Your task to perform on an android device: Set the phone to "Do not disturb". Image 0: 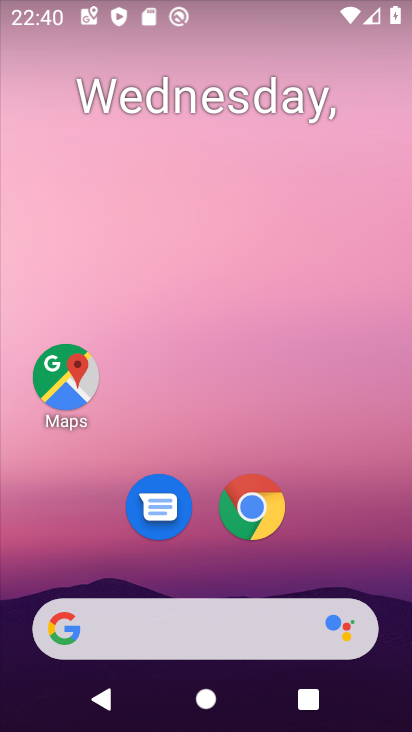
Step 0: drag from (150, 6) to (158, 441)
Your task to perform on an android device: Set the phone to "Do not disturb". Image 1: 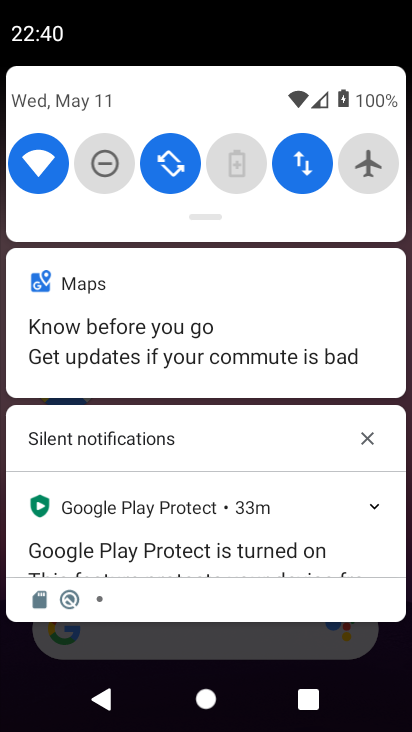
Step 1: click (107, 163)
Your task to perform on an android device: Set the phone to "Do not disturb". Image 2: 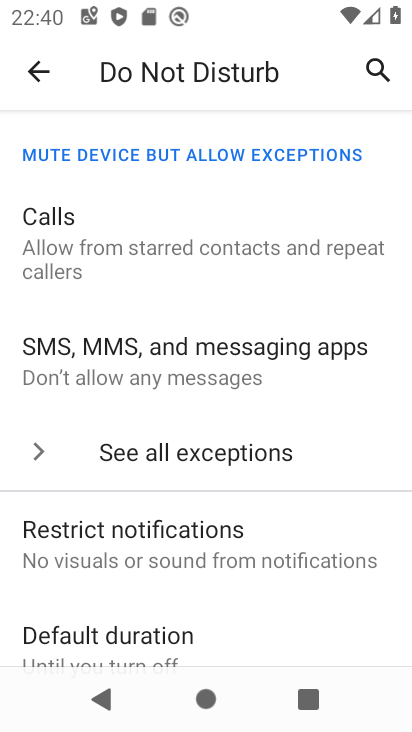
Step 2: task complete